Your task to perform on an android device: turn off priority inbox in the gmail app Image 0: 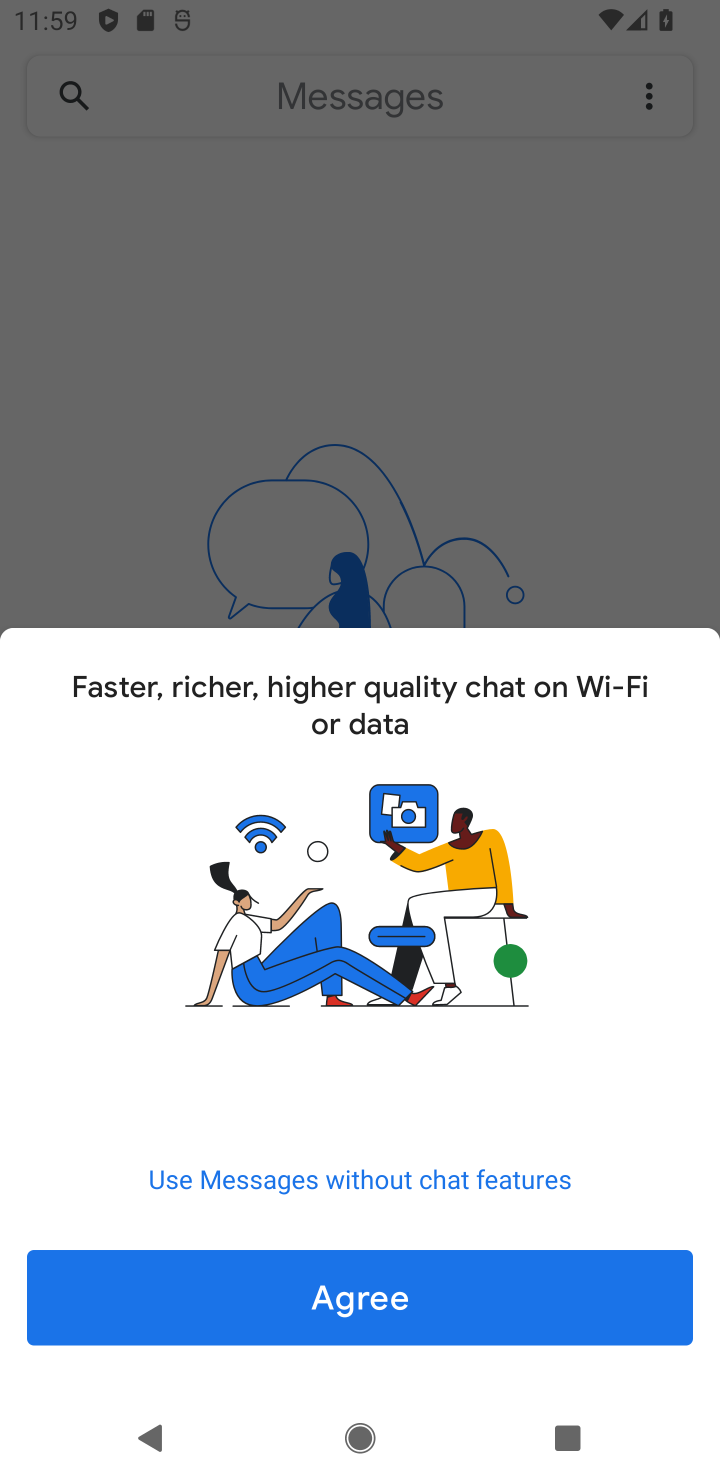
Step 0: press home button
Your task to perform on an android device: turn off priority inbox in the gmail app Image 1: 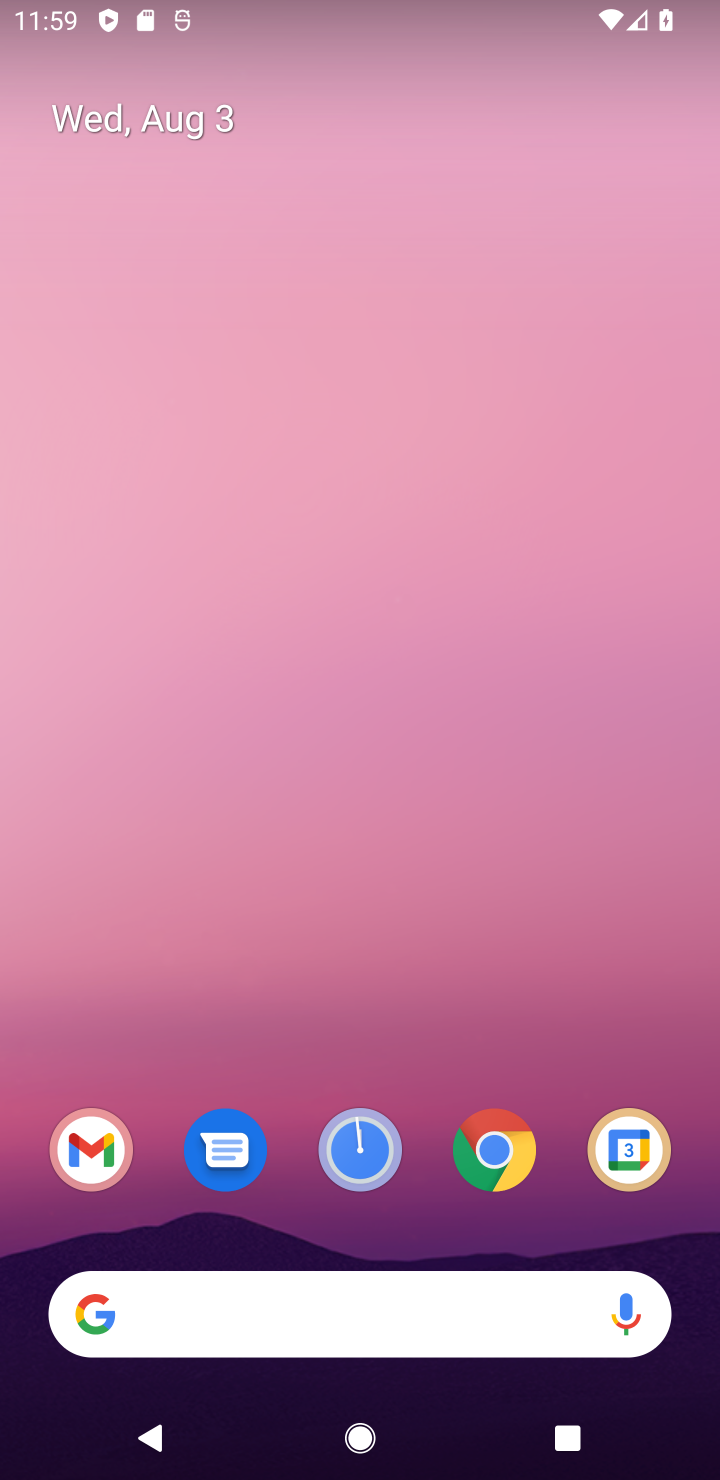
Step 1: drag from (407, 1064) to (415, 334)
Your task to perform on an android device: turn off priority inbox in the gmail app Image 2: 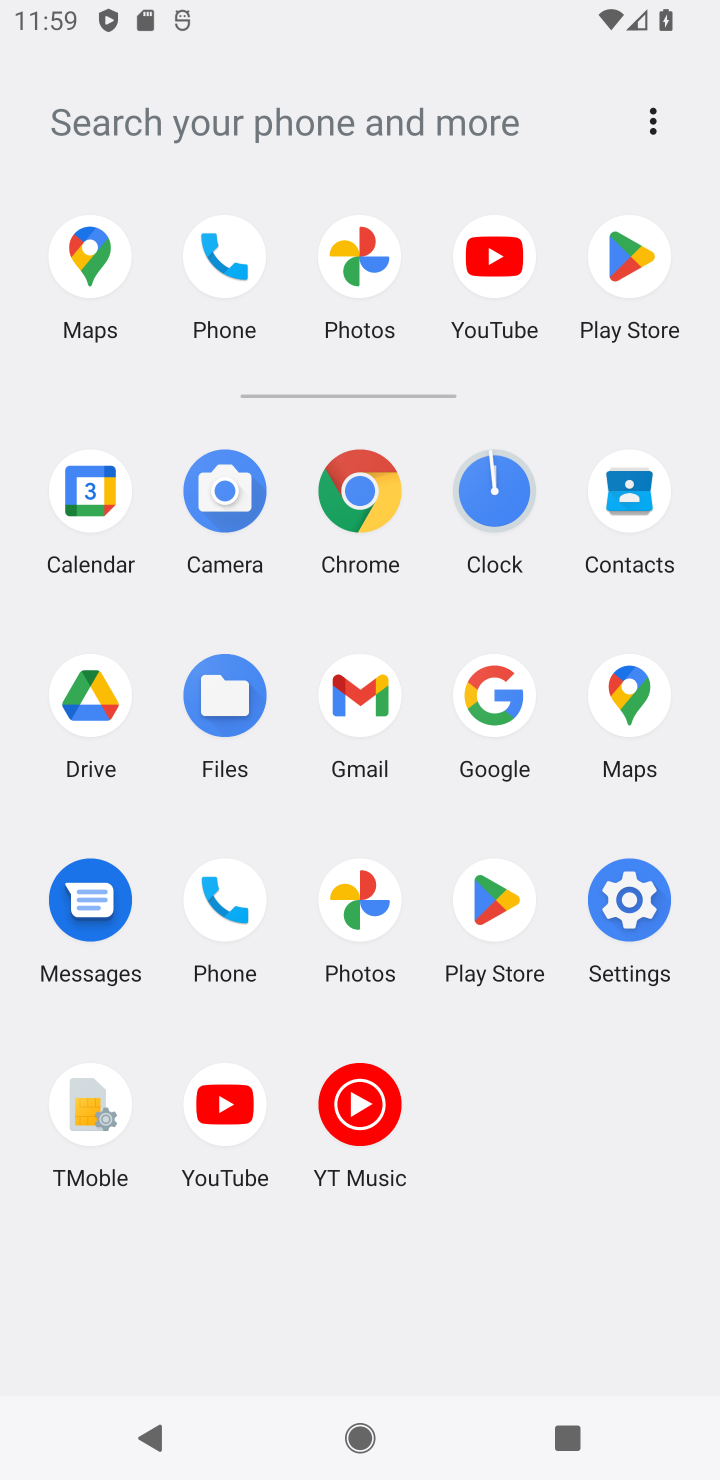
Step 2: click (371, 706)
Your task to perform on an android device: turn off priority inbox in the gmail app Image 3: 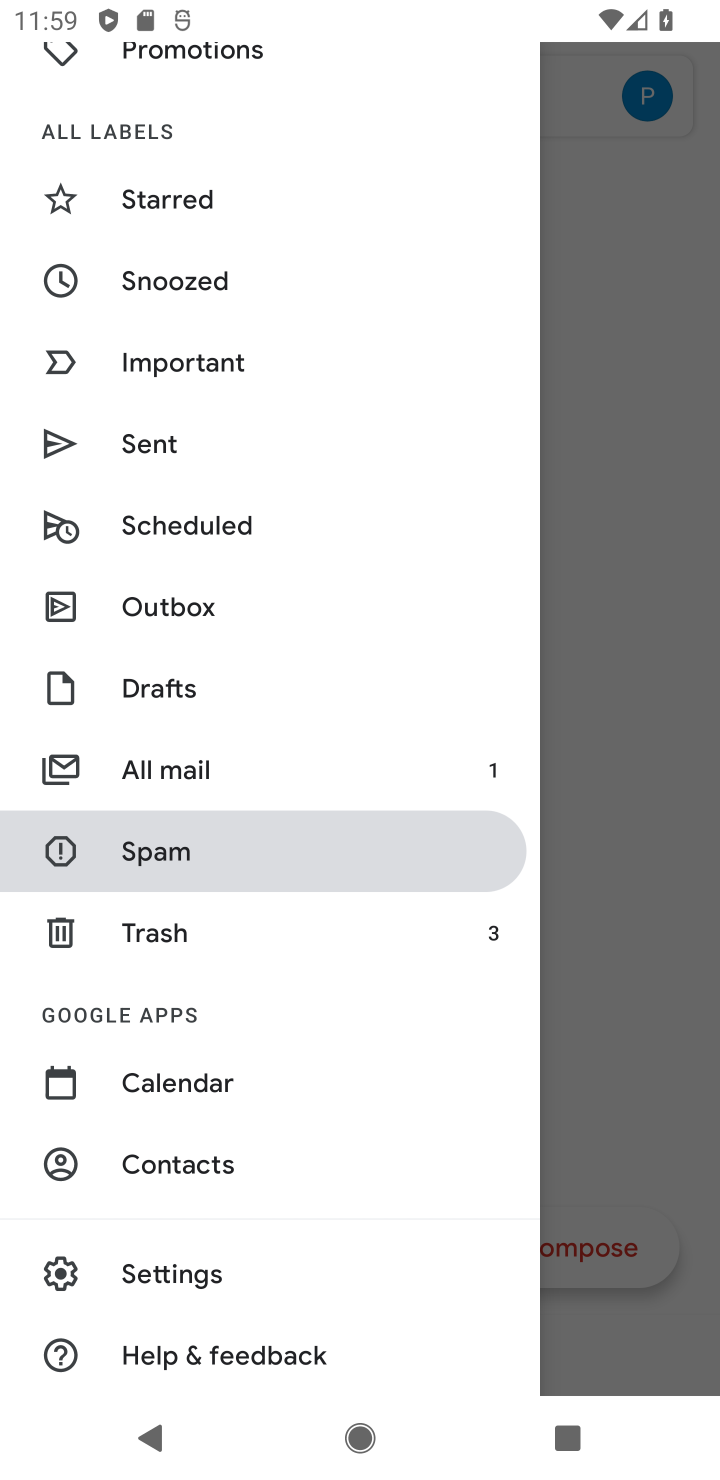
Step 3: click (307, 1271)
Your task to perform on an android device: turn off priority inbox in the gmail app Image 4: 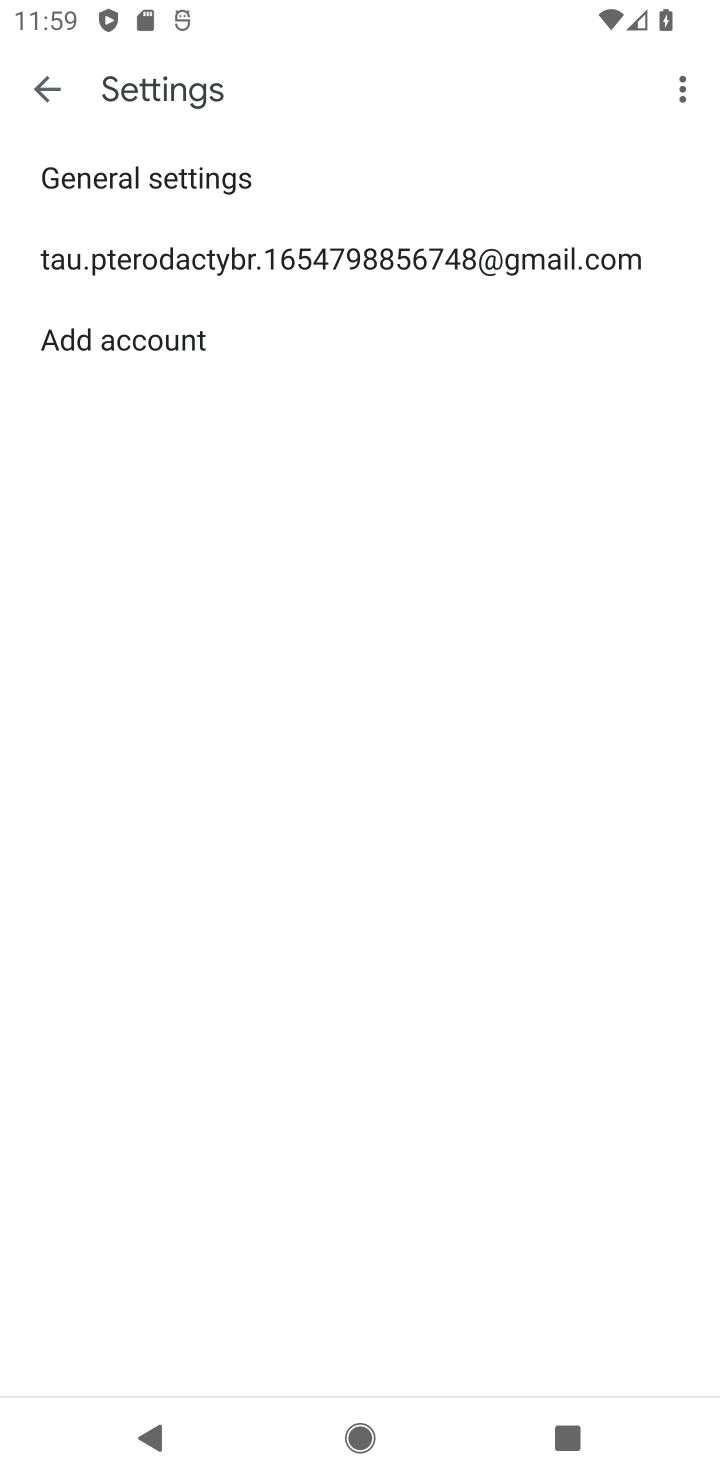
Step 4: click (375, 278)
Your task to perform on an android device: turn off priority inbox in the gmail app Image 5: 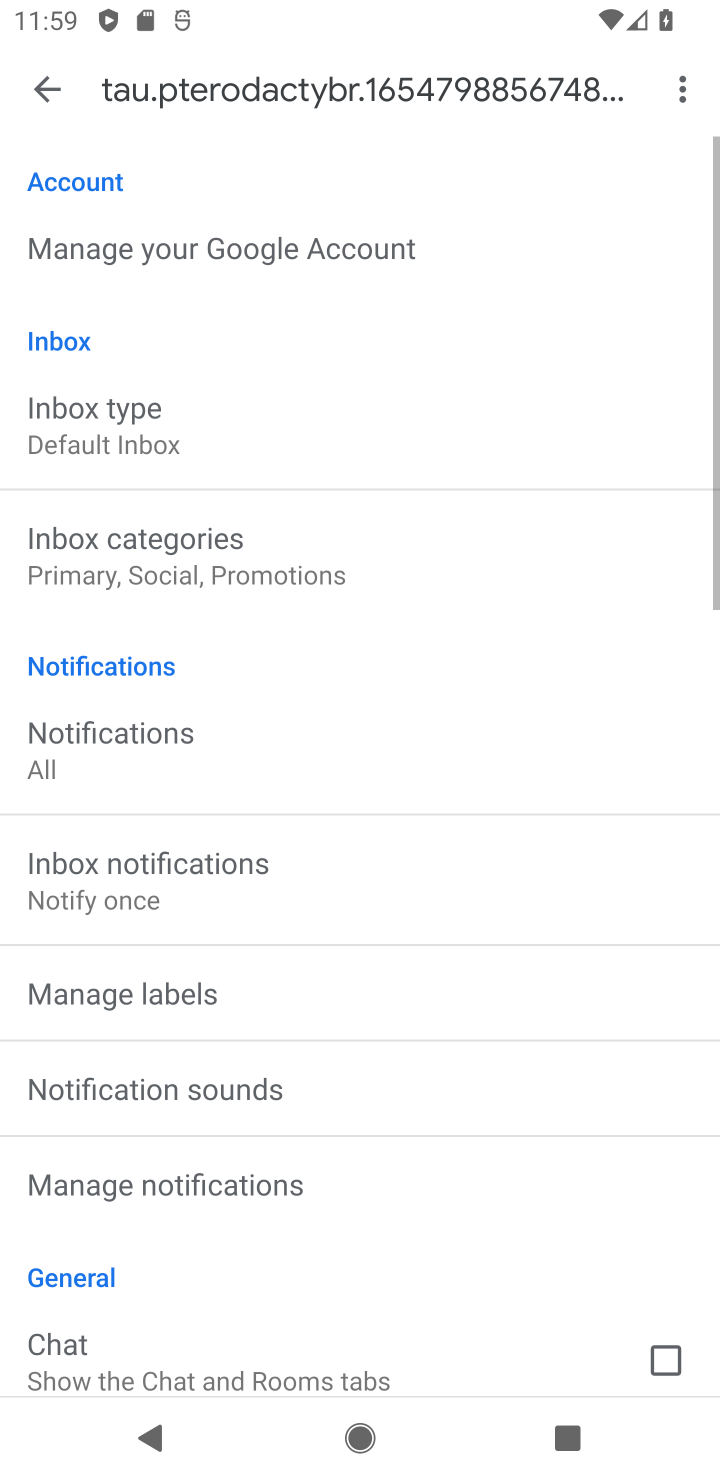
Step 5: task complete